Your task to perform on an android device: allow cookies in the chrome app Image 0: 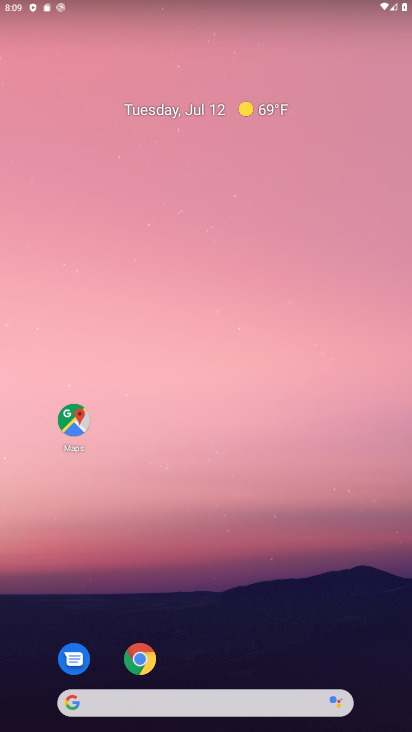
Step 0: drag from (272, 642) to (223, 231)
Your task to perform on an android device: allow cookies in the chrome app Image 1: 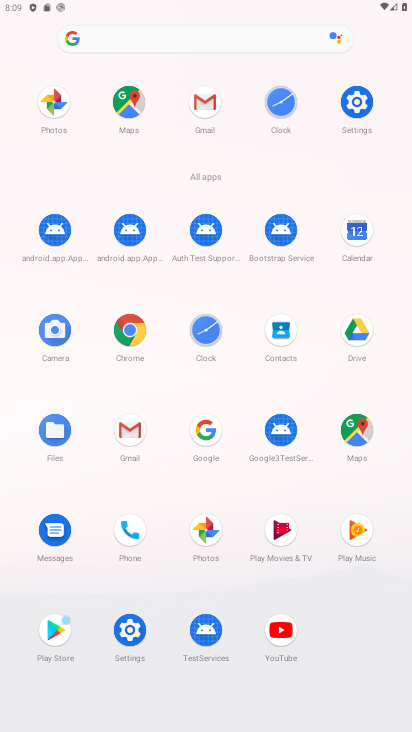
Step 1: click (133, 323)
Your task to perform on an android device: allow cookies in the chrome app Image 2: 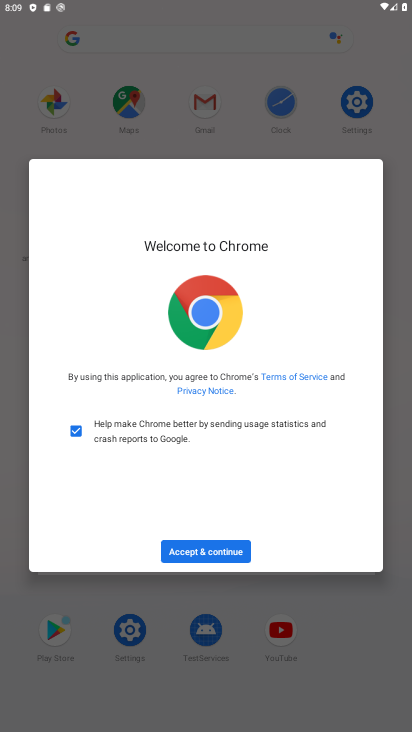
Step 2: click (225, 554)
Your task to perform on an android device: allow cookies in the chrome app Image 3: 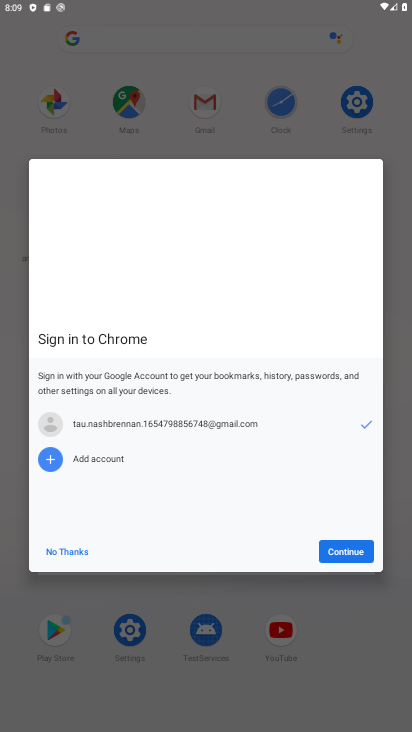
Step 3: click (346, 545)
Your task to perform on an android device: allow cookies in the chrome app Image 4: 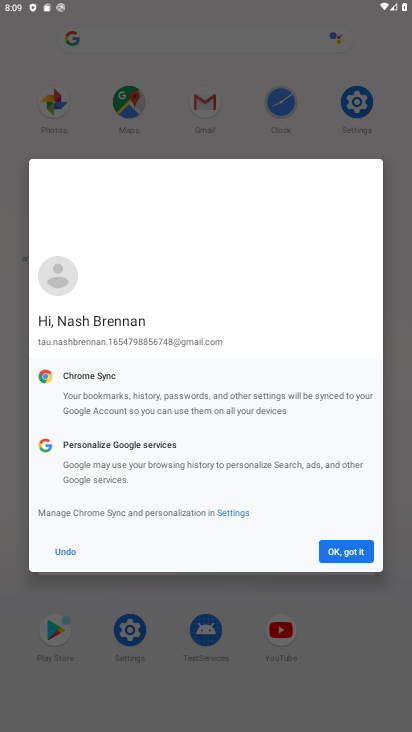
Step 4: click (349, 548)
Your task to perform on an android device: allow cookies in the chrome app Image 5: 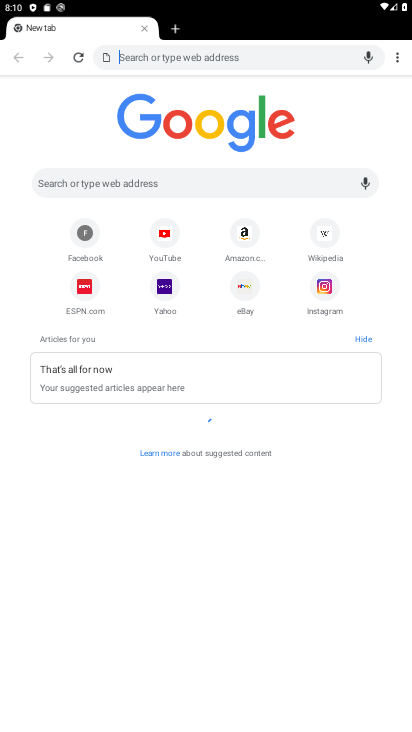
Step 5: click (399, 55)
Your task to perform on an android device: allow cookies in the chrome app Image 6: 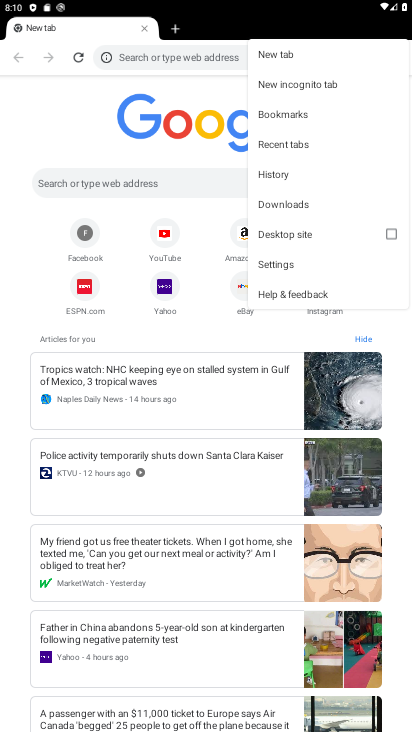
Step 6: click (287, 267)
Your task to perform on an android device: allow cookies in the chrome app Image 7: 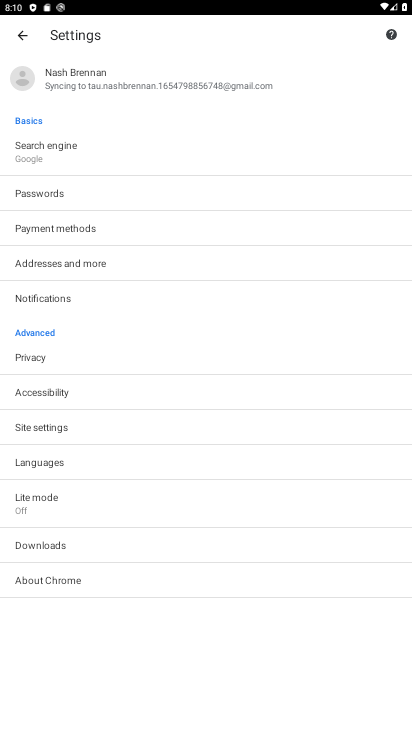
Step 7: click (74, 420)
Your task to perform on an android device: allow cookies in the chrome app Image 8: 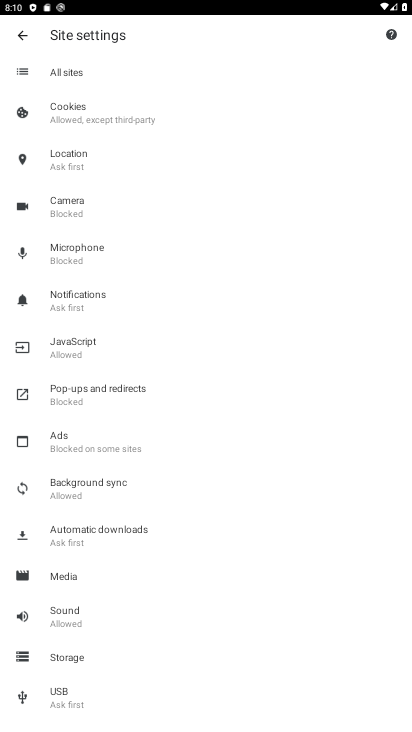
Step 8: click (139, 105)
Your task to perform on an android device: allow cookies in the chrome app Image 9: 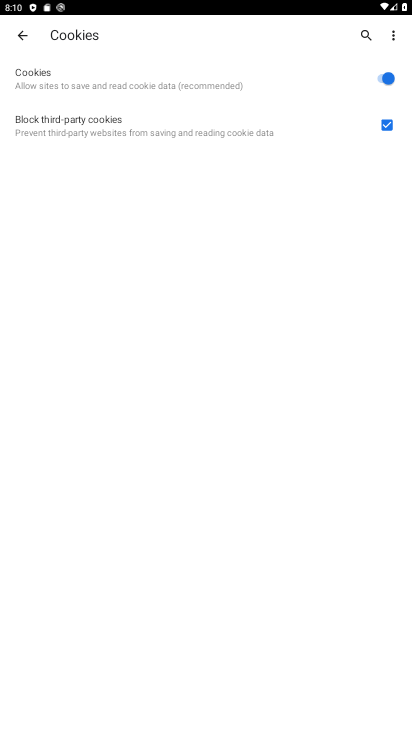
Step 9: task complete